Your task to perform on an android device: delete location history Image 0: 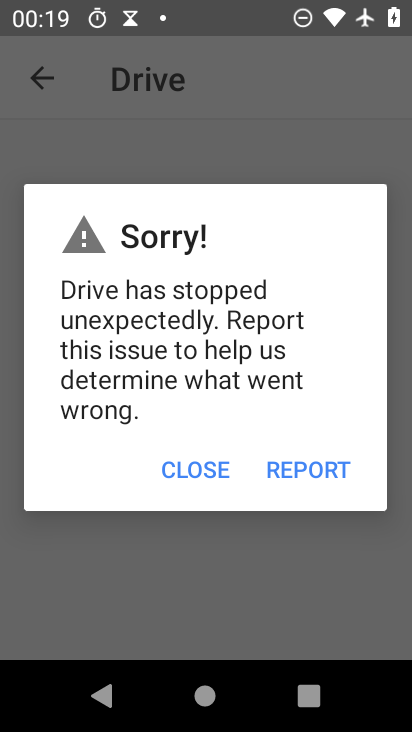
Step 0: press back button
Your task to perform on an android device: delete location history Image 1: 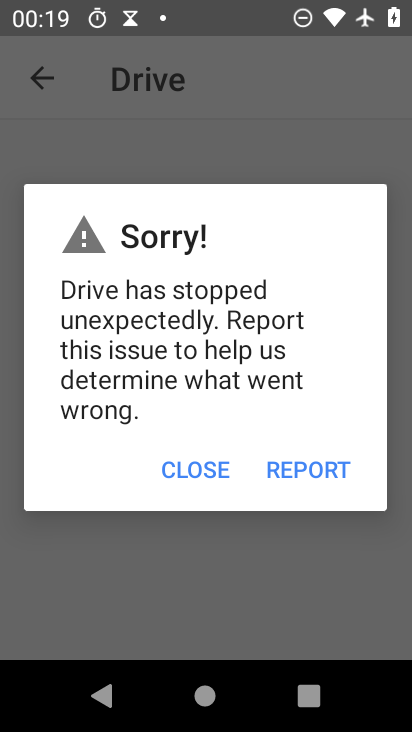
Step 1: press home button
Your task to perform on an android device: delete location history Image 2: 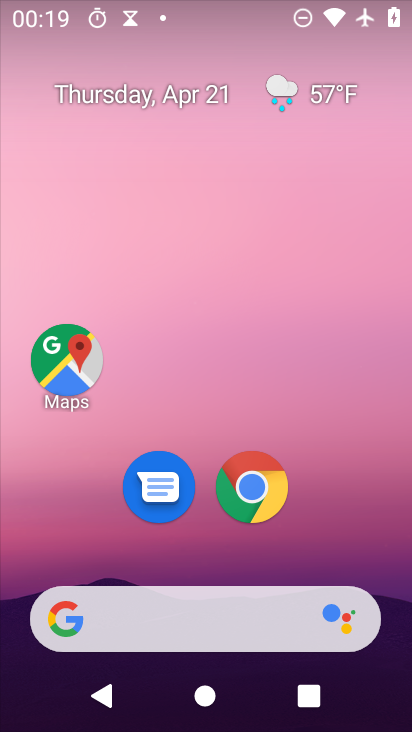
Step 2: drag from (335, 516) to (221, 15)
Your task to perform on an android device: delete location history Image 3: 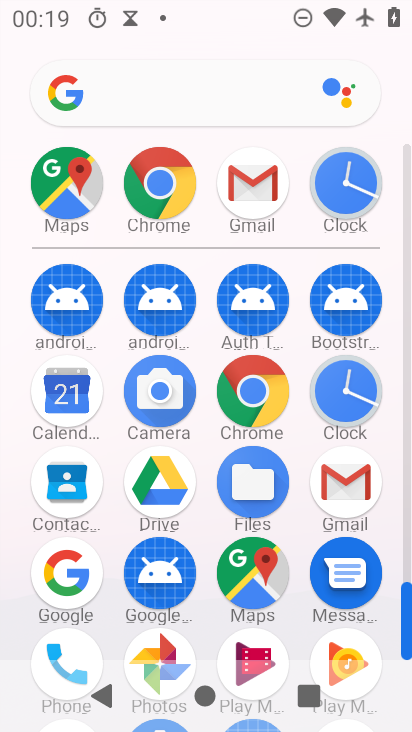
Step 3: drag from (21, 532) to (12, 172)
Your task to perform on an android device: delete location history Image 4: 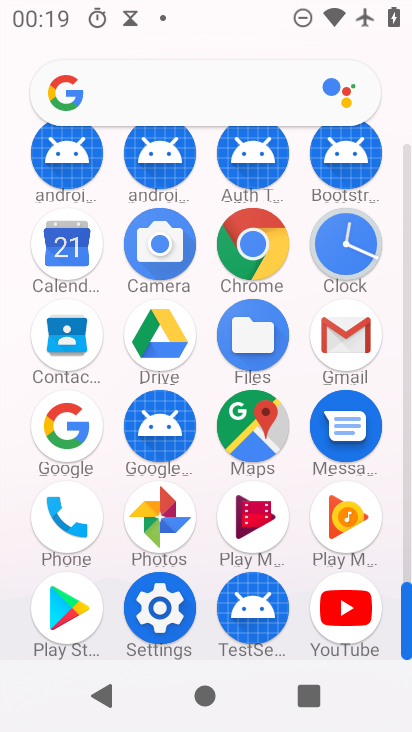
Step 4: click (162, 607)
Your task to perform on an android device: delete location history Image 5: 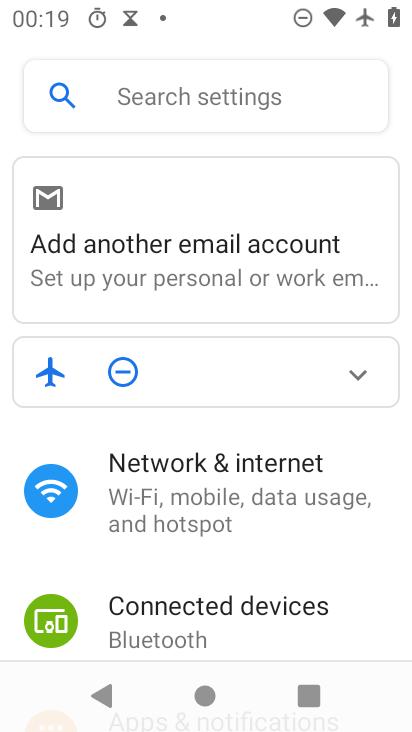
Step 5: drag from (255, 471) to (226, 151)
Your task to perform on an android device: delete location history Image 6: 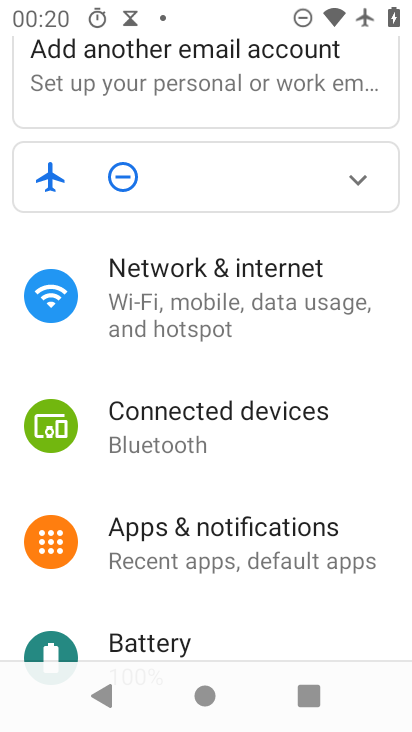
Step 6: drag from (290, 513) to (262, 160)
Your task to perform on an android device: delete location history Image 7: 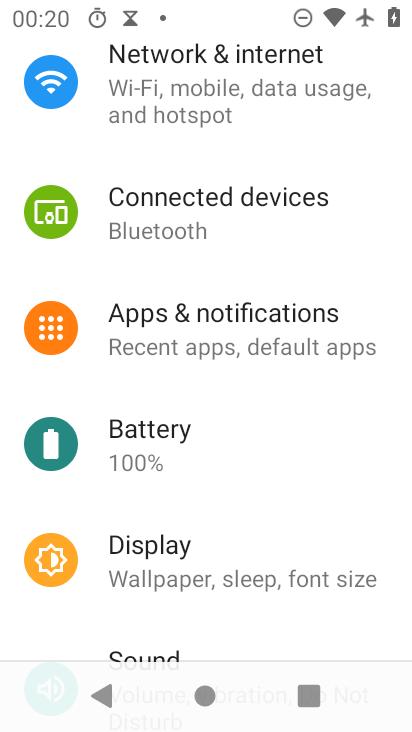
Step 7: drag from (276, 545) to (258, 264)
Your task to perform on an android device: delete location history Image 8: 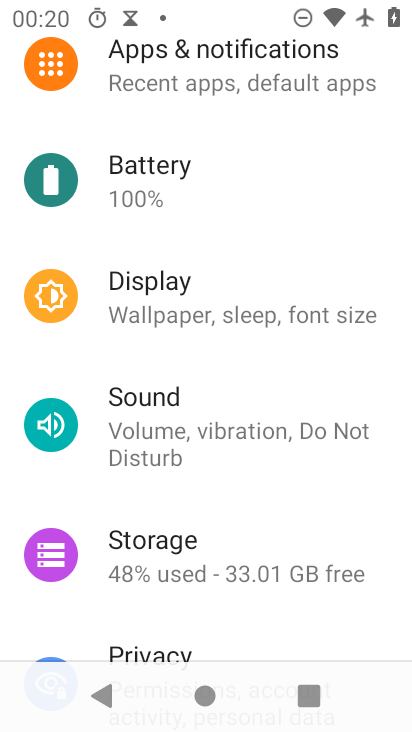
Step 8: drag from (249, 556) to (213, 204)
Your task to perform on an android device: delete location history Image 9: 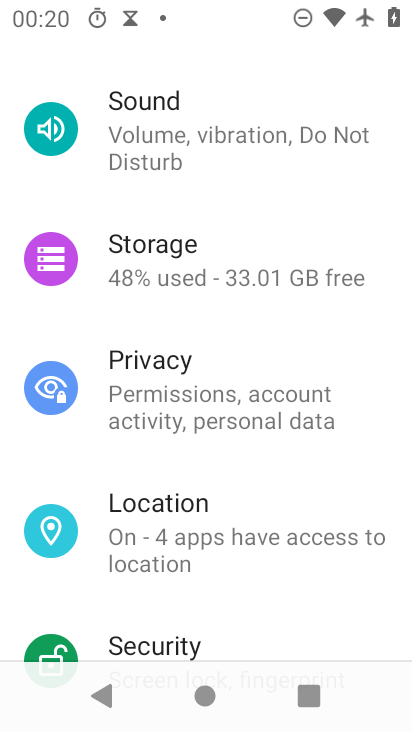
Step 9: drag from (254, 457) to (280, 275)
Your task to perform on an android device: delete location history Image 10: 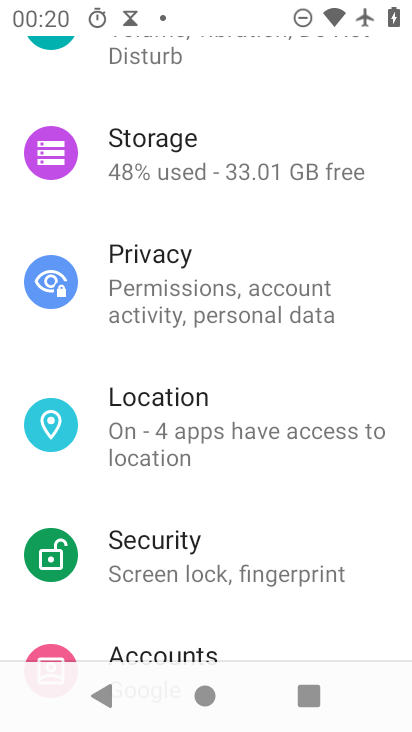
Step 10: click (242, 440)
Your task to perform on an android device: delete location history Image 11: 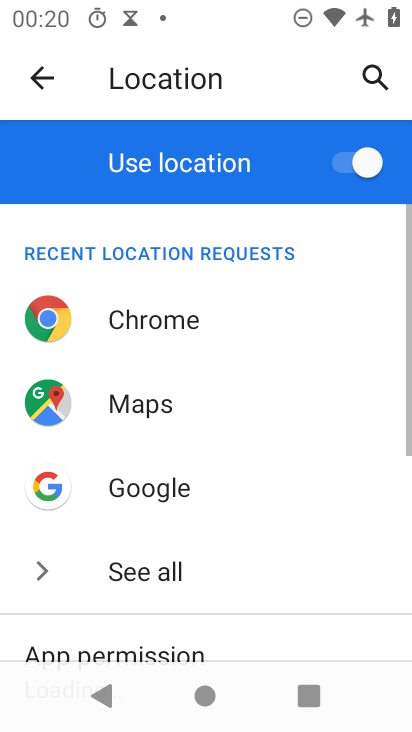
Step 11: drag from (274, 527) to (261, 175)
Your task to perform on an android device: delete location history Image 12: 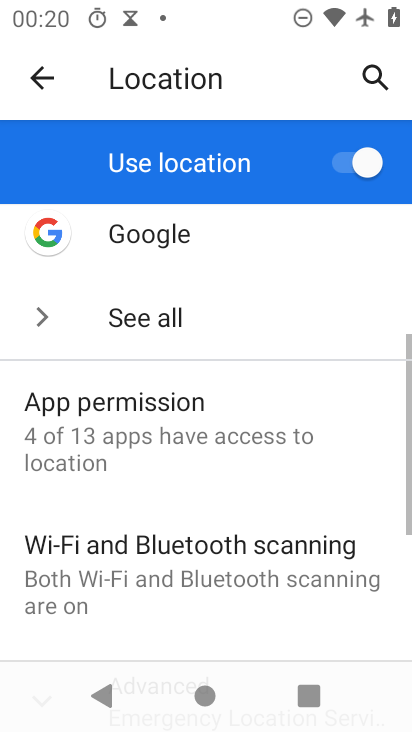
Step 12: drag from (222, 471) to (240, 170)
Your task to perform on an android device: delete location history Image 13: 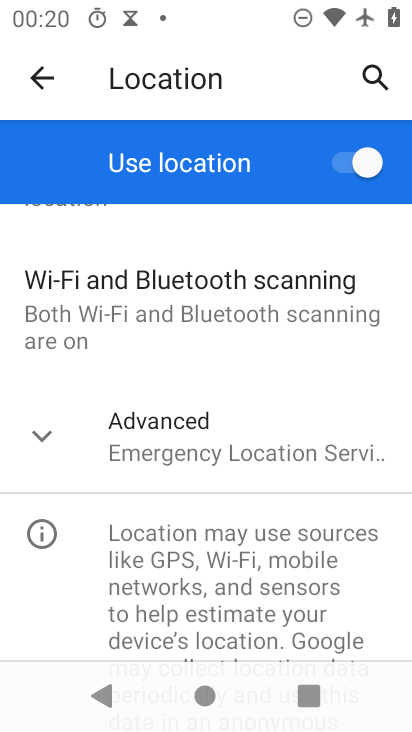
Step 13: click (165, 435)
Your task to perform on an android device: delete location history Image 14: 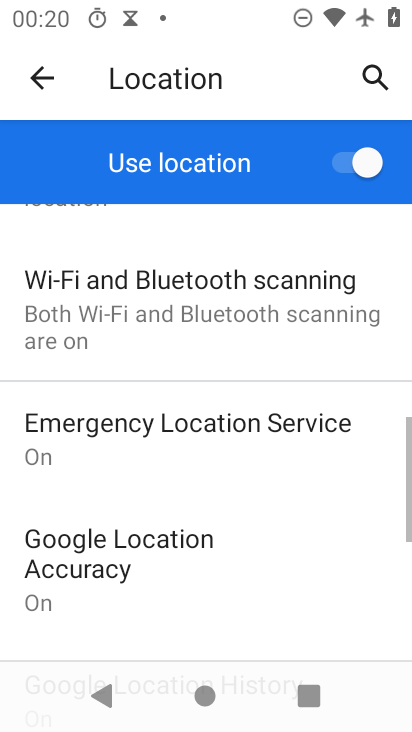
Step 14: drag from (275, 535) to (271, 257)
Your task to perform on an android device: delete location history Image 15: 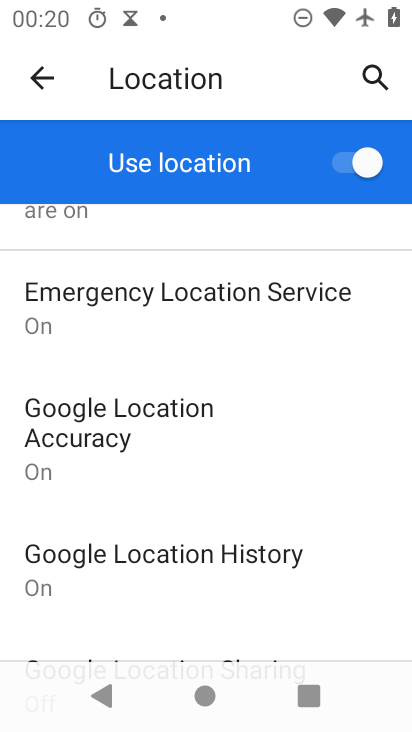
Step 15: click (184, 545)
Your task to perform on an android device: delete location history Image 16: 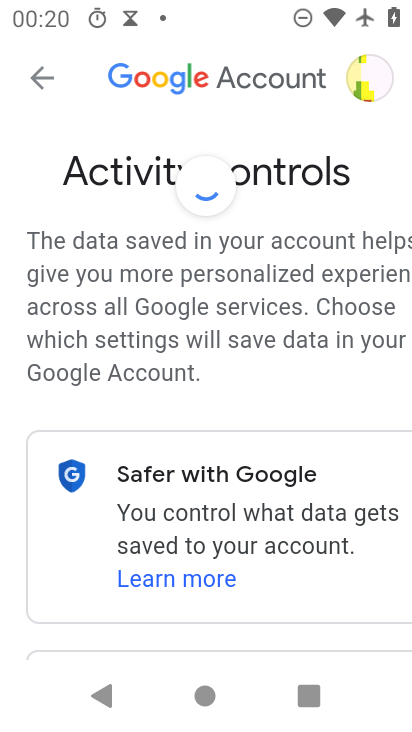
Step 16: drag from (234, 497) to (164, 105)
Your task to perform on an android device: delete location history Image 17: 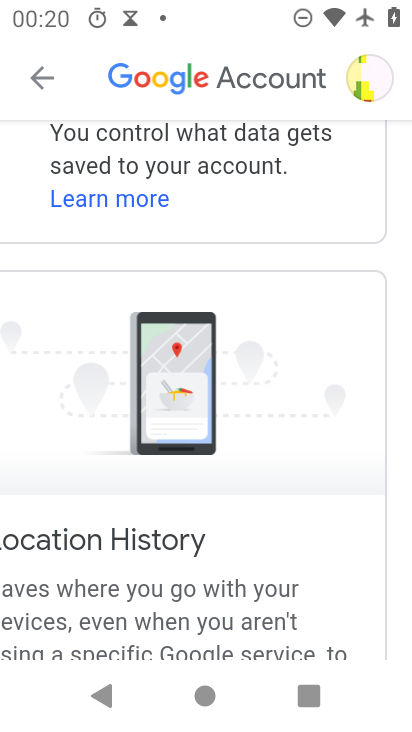
Step 17: drag from (253, 473) to (275, 165)
Your task to perform on an android device: delete location history Image 18: 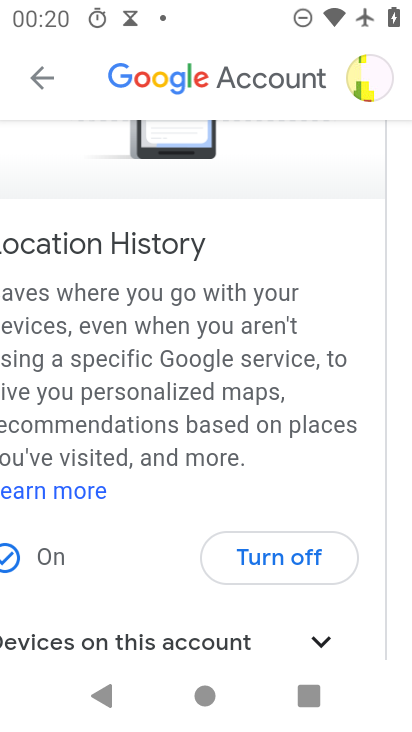
Step 18: drag from (222, 400) to (288, 168)
Your task to perform on an android device: delete location history Image 19: 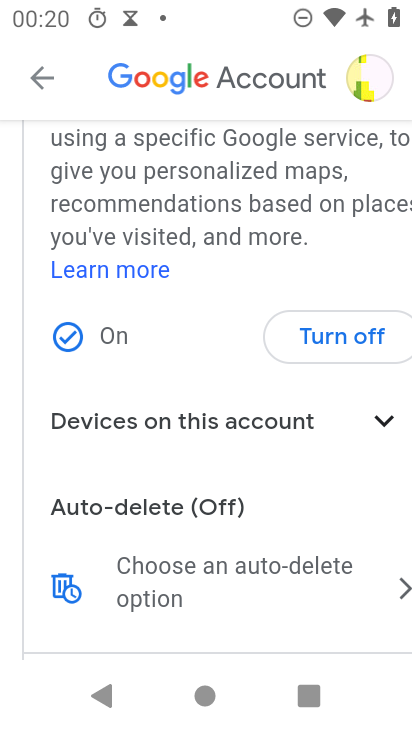
Step 19: drag from (167, 440) to (205, 181)
Your task to perform on an android device: delete location history Image 20: 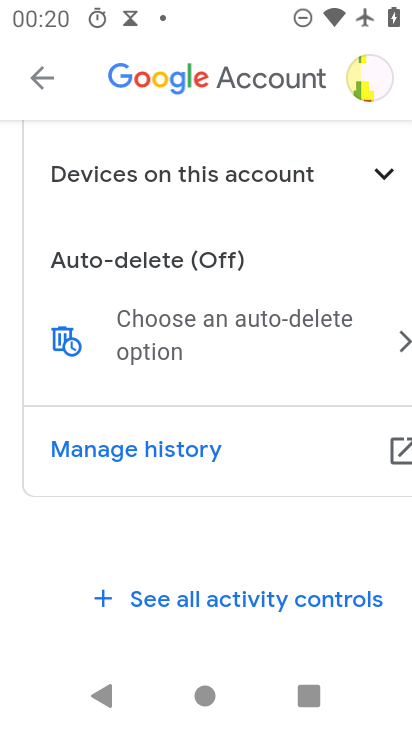
Step 20: click (139, 336)
Your task to perform on an android device: delete location history Image 21: 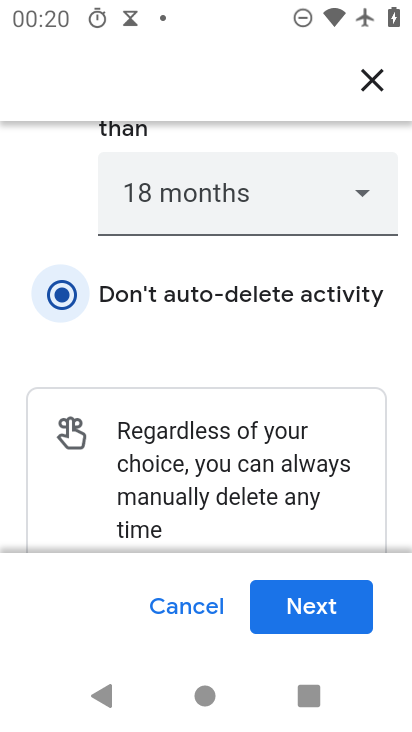
Step 21: click (319, 593)
Your task to perform on an android device: delete location history Image 22: 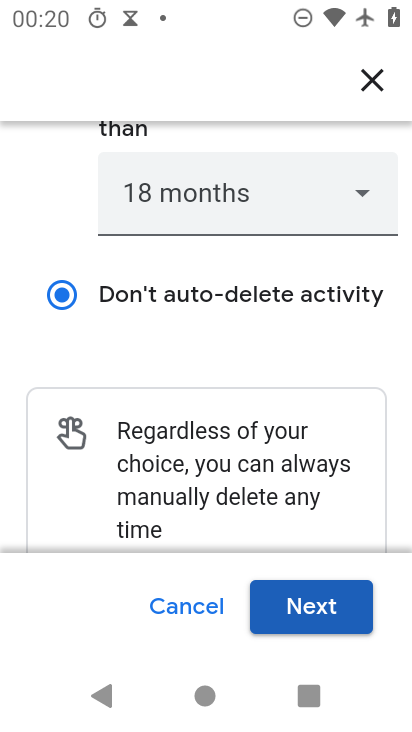
Step 22: click (327, 605)
Your task to perform on an android device: delete location history Image 23: 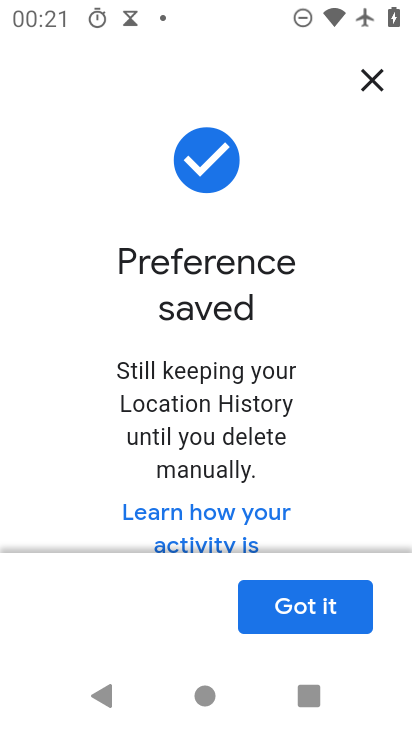
Step 23: task complete